Your task to perform on an android device: add a contact in the contacts app Image 0: 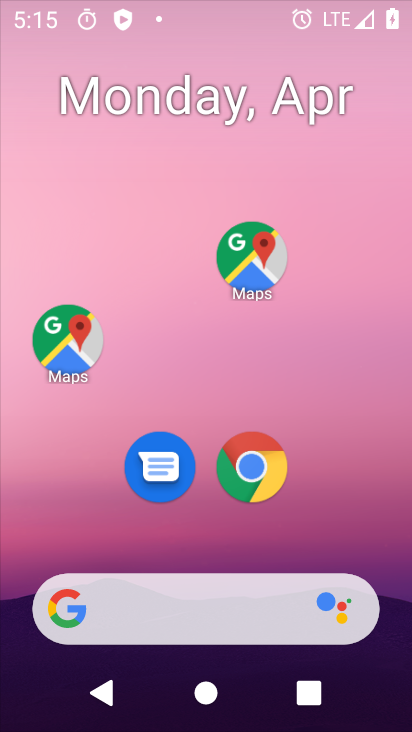
Step 0: drag from (356, 598) to (324, 10)
Your task to perform on an android device: add a contact in the contacts app Image 1: 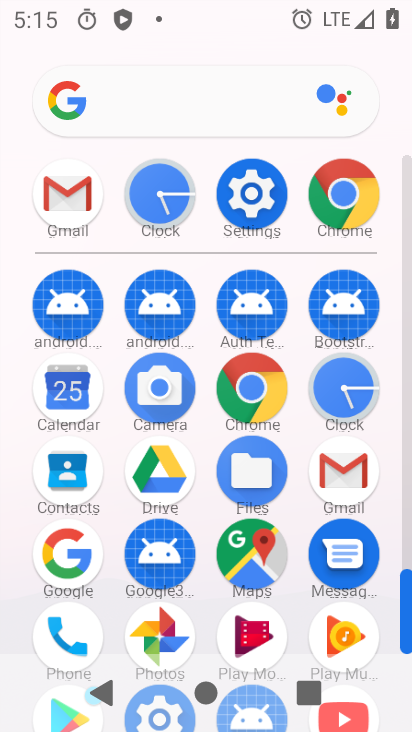
Step 1: click (332, 472)
Your task to perform on an android device: add a contact in the contacts app Image 2: 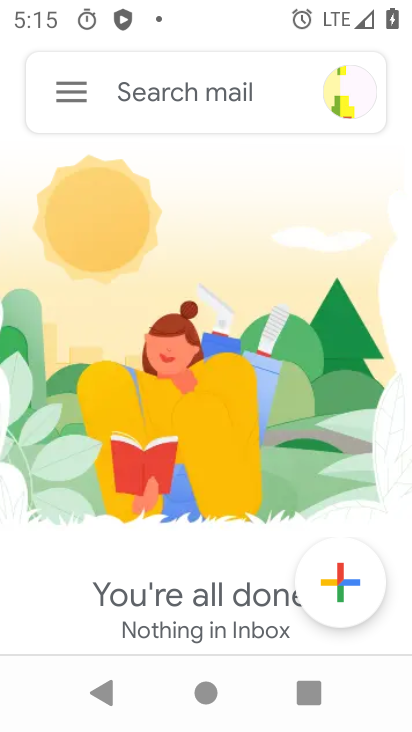
Step 2: press home button
Your task to perform on an android device: add a contact in the contacts app Image 3: 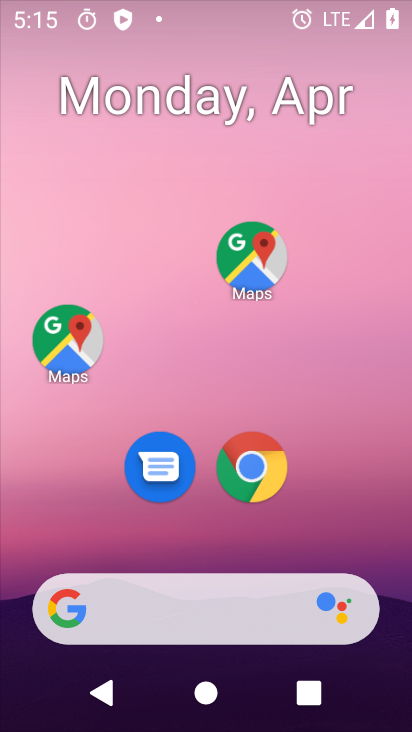
Step 3: drag from (286, 654) to (308, 87)
Your task to perform on an android device: add a contact in the contacts app Image 4: 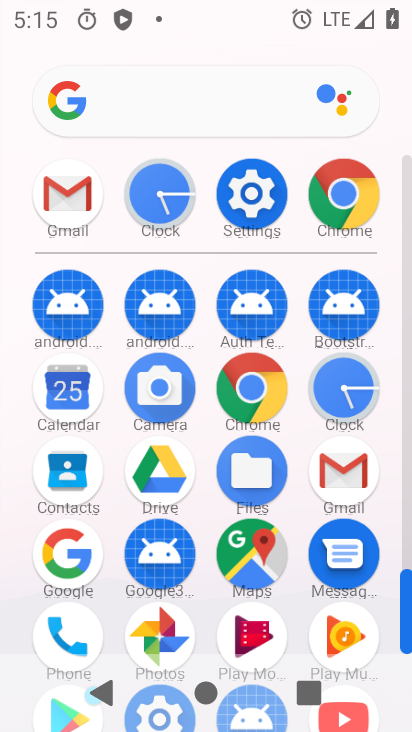
Step 4: click (67, 476)
Your task to perform on an android device: add a contact in the contacts app Image 5: 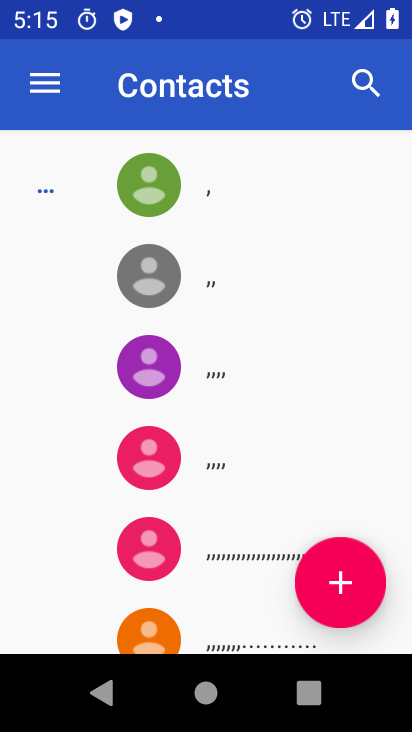
Step 5: click (363, 562)
Your task to perform on an android device: add a contact in the contacts app Image 6: 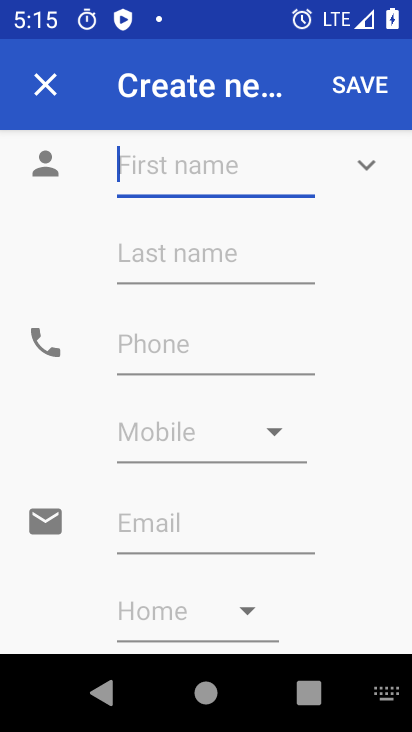
Step 6: type "ddffffvdcvdvff"
Your task to perform on an android device: add a contact in the contacts app Image 7: 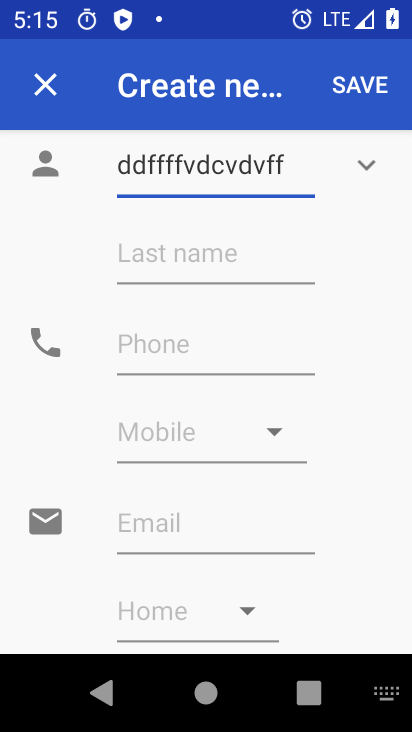
Step 7: click (213, 369)
Your task to perform on an android device: add a contact in the contacts app Image 8: 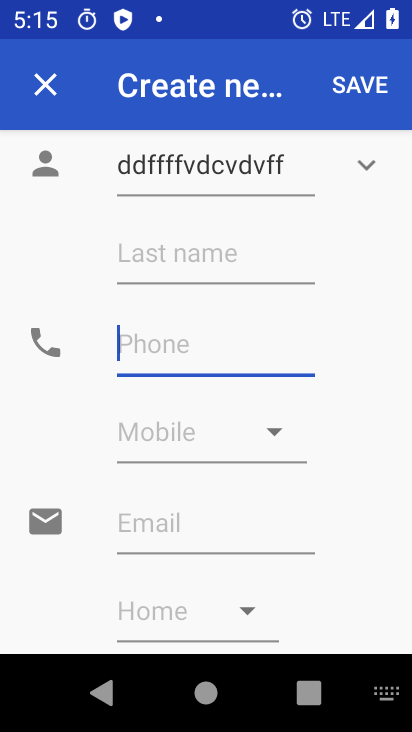
Step 8: type "445667765544"
Your task to perform on an android device: add a contact in the contacts app Image 9: 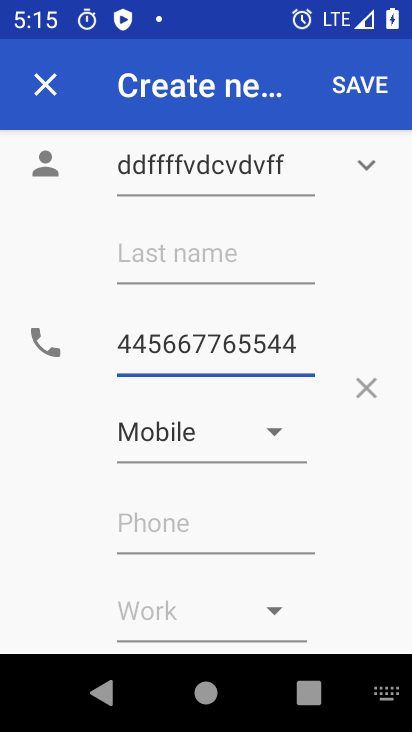
Step 9: click (348, 85)
Your task to perform on an android device: add a contact in the contacts app Image 10: 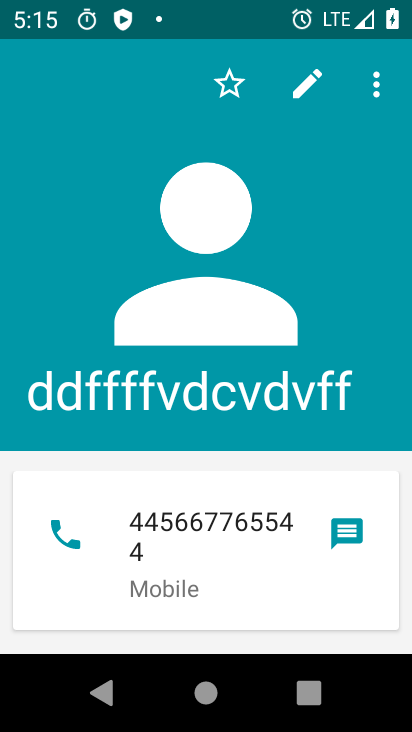
Step 10: task complete